Your task to perform on an android device: Open internet settings Image 0: 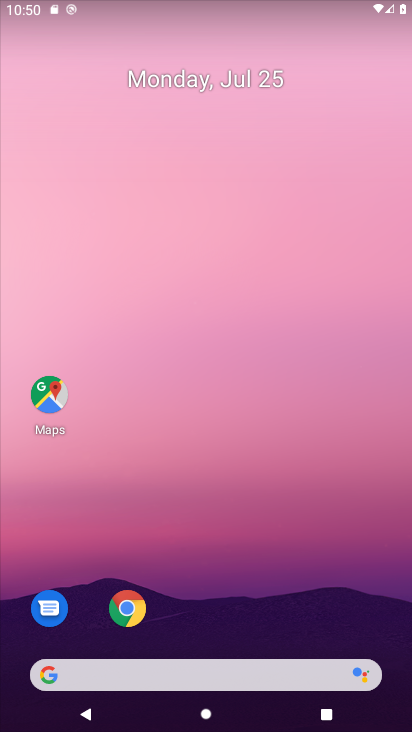
Step 0: drag from (220, 660) to (225, 152)
Your task to perform on an android device: Open internet settings Image 1: 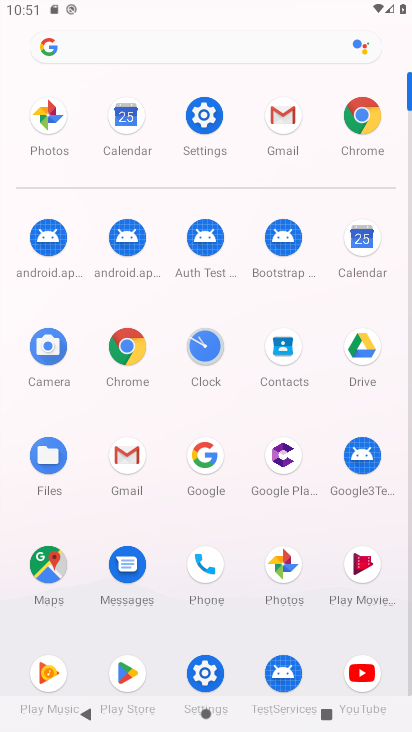
Step 1: click (211, 96)
Your task to perform on an android device: Open internet settings Image 2: 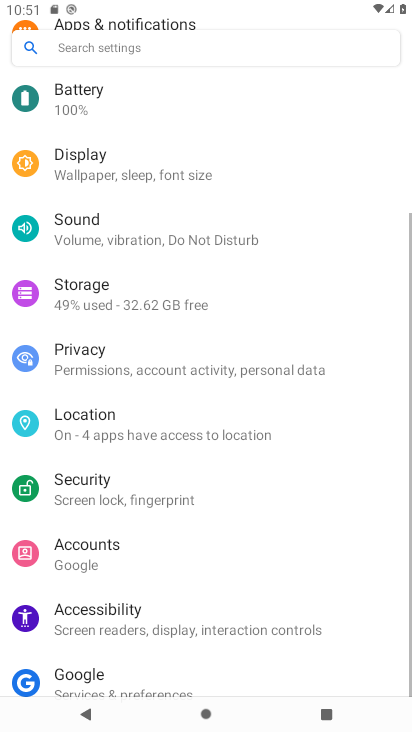
Step 2: drag from (128, 166) to (124, 492)
Your task to perform on an android device: Open internet settings Image 3: 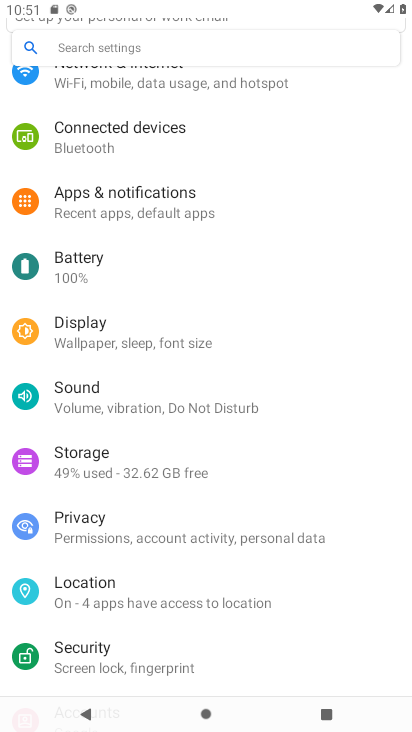
Step 3: drag from (133, 186) to (131, 671)
Your task to perform on an android device: Open internet settings Image 4: 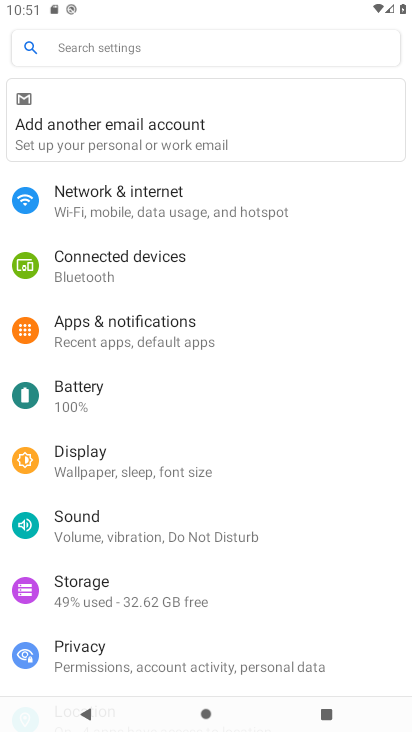
Step 4: click (110, 200)
Your task to perform on an android device: Open internet settings Image 5: 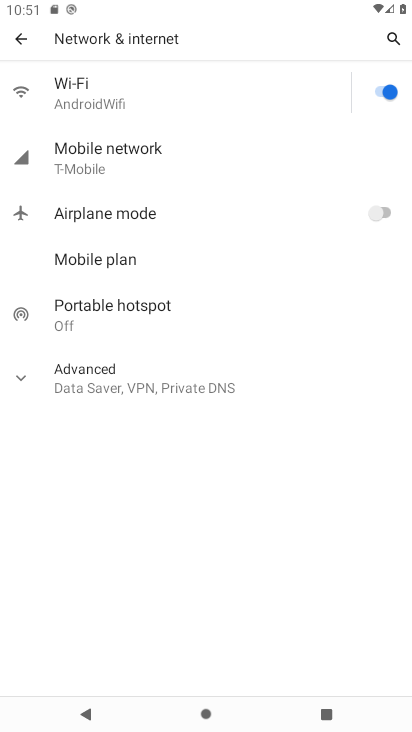
Step 5: task complete